Your task to perform on an android device: Search for 35 best books of all time Image 0: 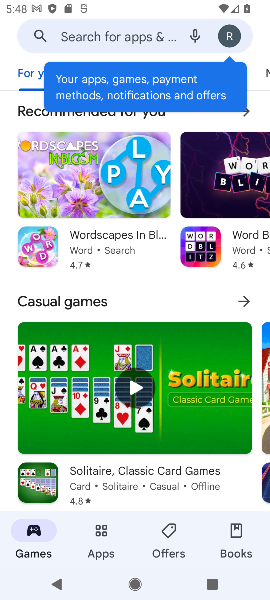
Step 0: press home button
Your task to perform on an android device: Search for 35 best books of all time Image 1: 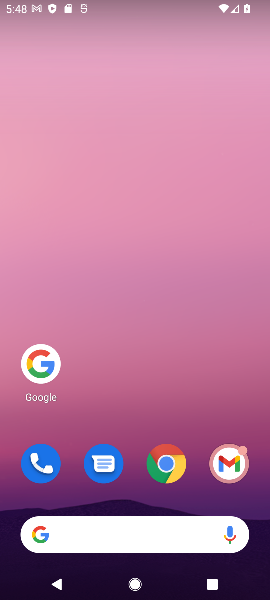
Step 1: click (38, 354)
Your task to perform on an android device: Search for 35 best books of all time Image 2: 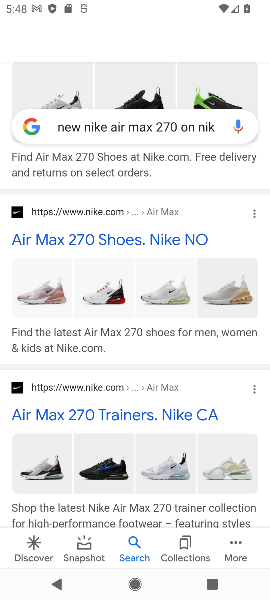
Step 2: click (106, 130)
Your task to perform on an android device: Search for 35 best books of all time Image 3: 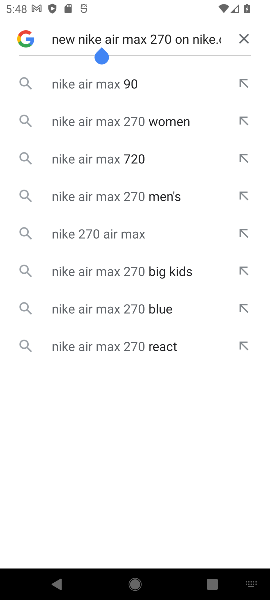
Step 3: click (238, 36)
Your task to perform on an android device: Search for 35 best books of all time Image 4: 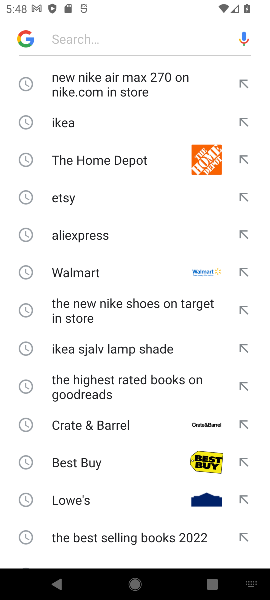
Step 4: click (149, 35)
Your task to perform on an android device: Search for 35 best books of all time Image 5: 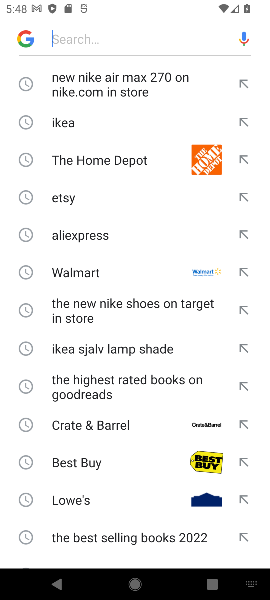
Step 5: type " 35 best books of all time "
Your task to perform on an android device: Search for 35 best books of all time Image 6: 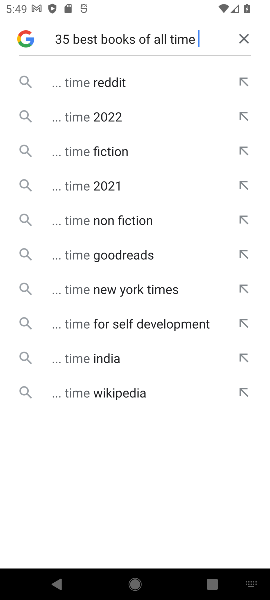
Step 6: click (105, 114)
Your task to perform on an android device: Search for 35 best books of all time Image 7: 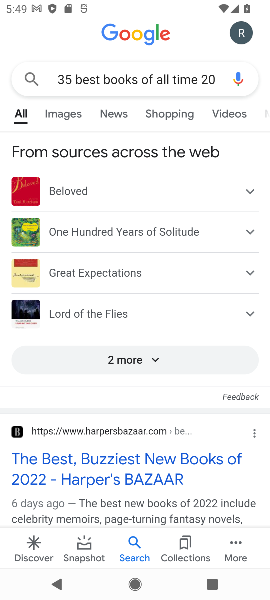
Step 7: drag from (94, 480) to (138, 300)
Your task to perform on an android device: Search for 35 best books of all time Image 8: 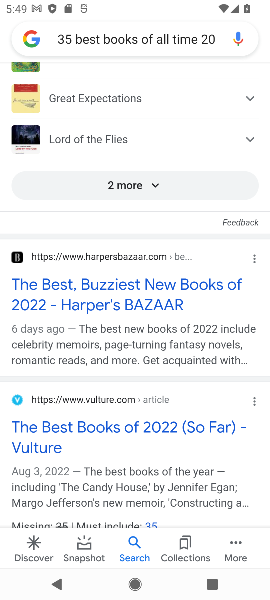
Step 8: drag from (99, 281) to (89, 542)
Your task to perform on an android device: Search for 35 best books of all time Image 9: 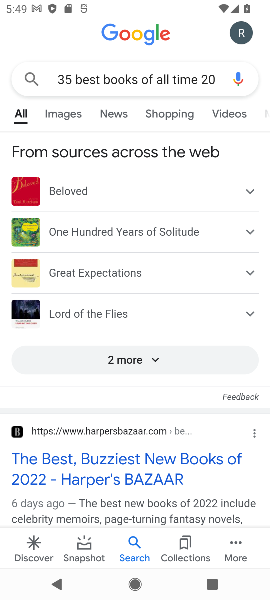
Step 9: click (111, 357)
Your task to perform on an android device: Search for 35 best books of all time Image 10: 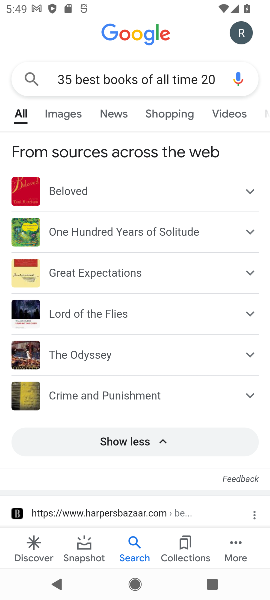
Step 10: drag from (131, 452) to (172, 196)
Your task to perform on an android device: Search for 35 best books of all time Image 11: 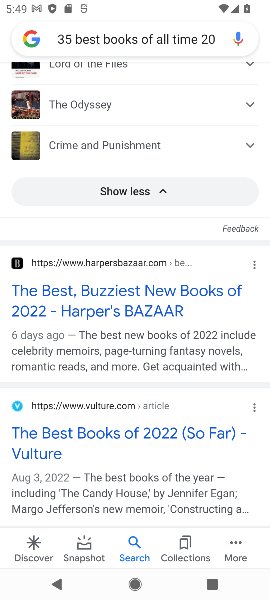
Step 11: click (116, 309)
Your task to perform on an android device: Search for 35 best books of all time Image 12: 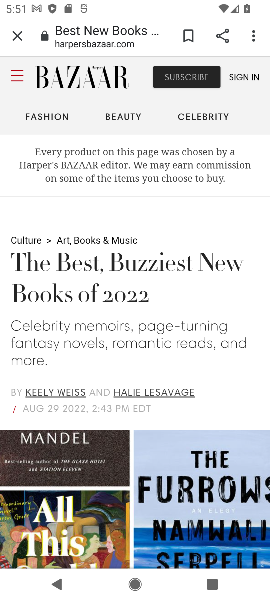
Step 12: task complete